Your task to perform on an android device: Go to Android settings Image 0: 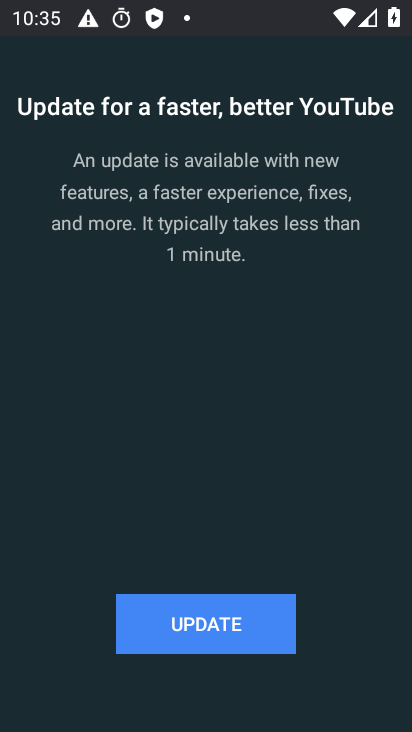
Step 0: press home button
Your task to perform on an android device: Go to Android settings Image 1: 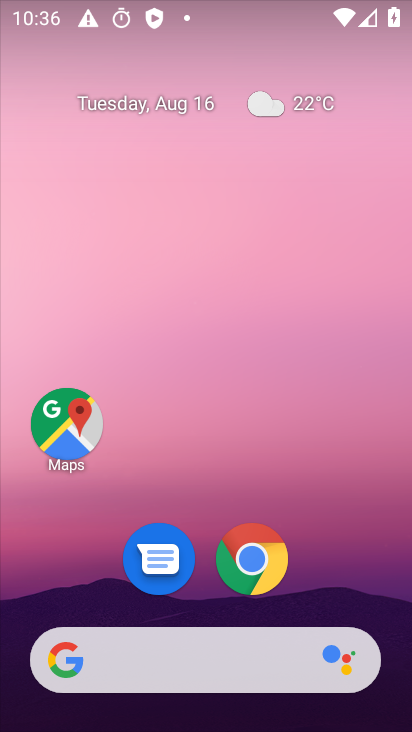
Step 1: drag from (216, 331) to (224, 213)
Your task to perform on an android device: Go to Android settings Image 2: 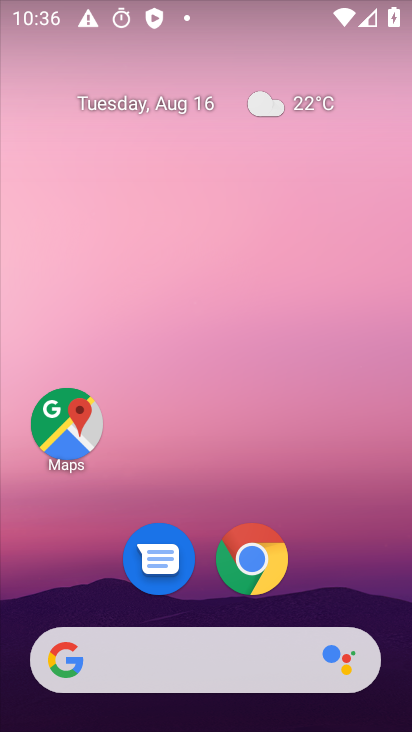
Step 2: drag from (200, 531) to (210, 37)
Your task to perform on an android device: Go to Android settings Image 3: 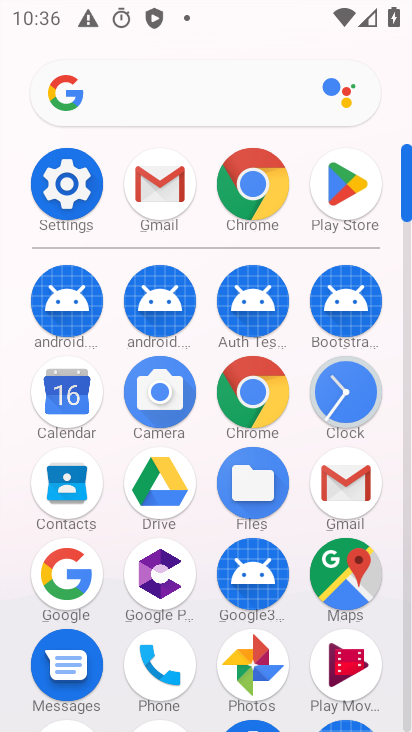
Step 3: click (66, 186)
Your task to perform on an android device: Go to Android settings Image 4: 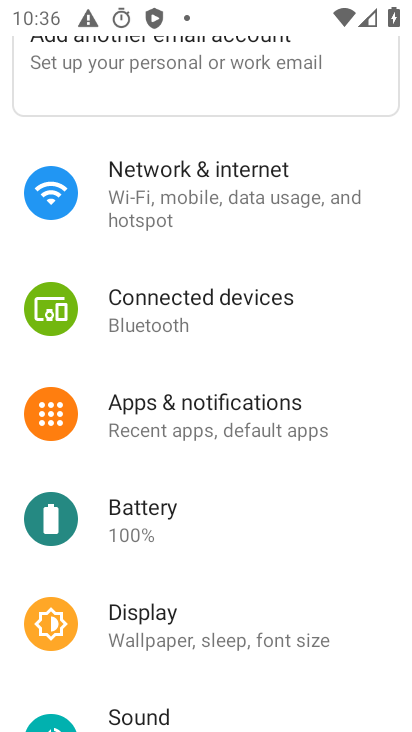
Step 4: drag from (218, 651) to (223, 369)
Your task to perform on an android device: Go to Android settings Image 5: 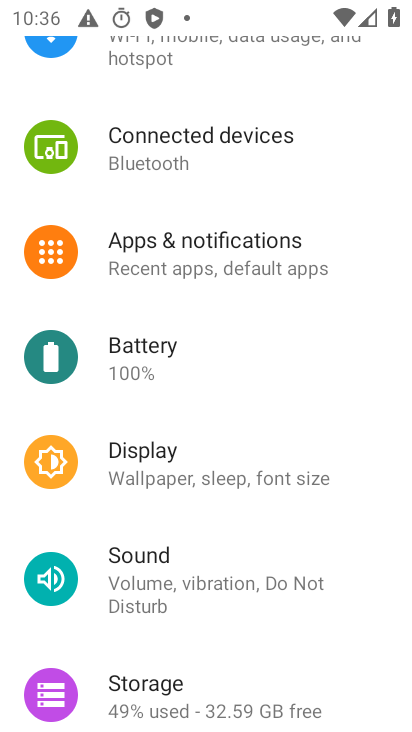
Step 5: drag from (223, 661) to (229, 271)
Your task to perform on an android device: Go to Android settings Image 6: 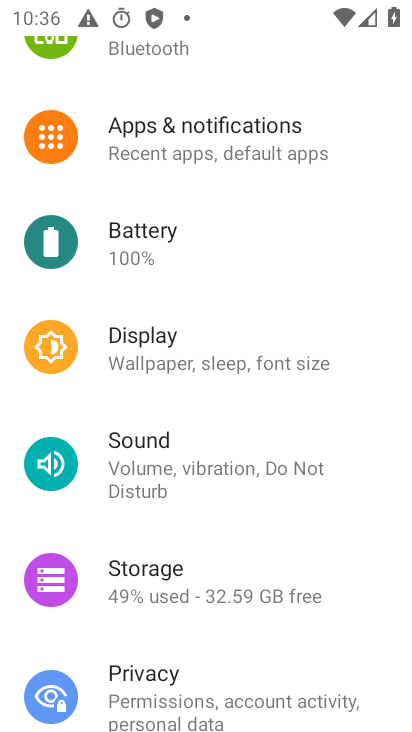
Step 6: drag from (209, 652) to (230, 183)
Your task to perform on an android device: Go to Android settings Image 7: 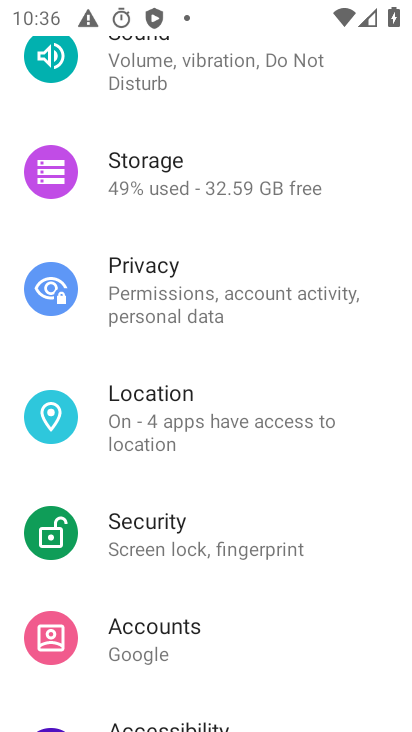
Step 7: drag from (221, 673) to (249, 354)
Your task to perform on an android device: Go to Android settings Image 8: 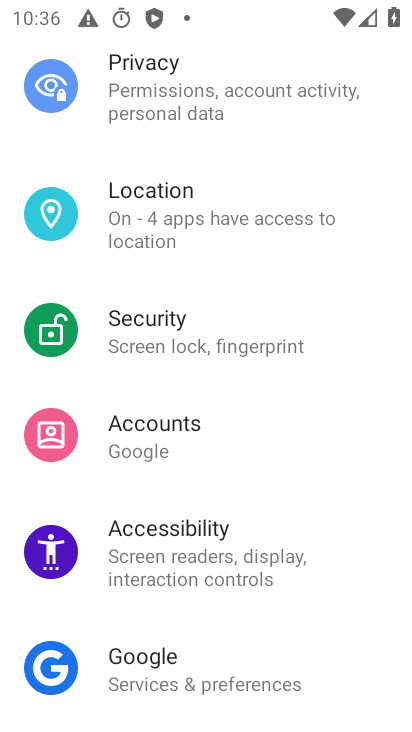
Step 8: drag from (218, 631) to (251, 292)
Your task to perform on an android device: Go to Android settings Image 9: 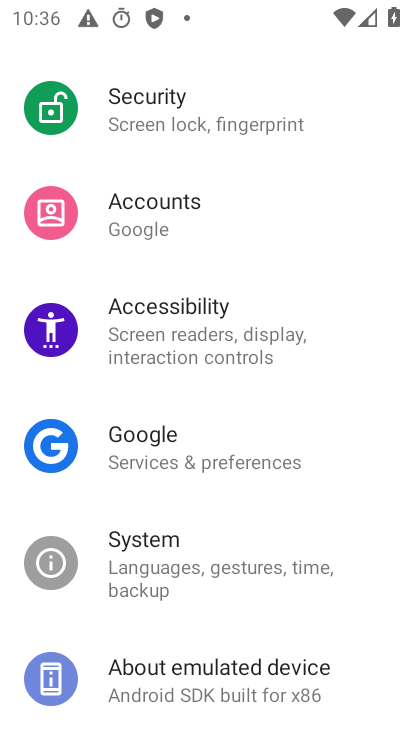
Step 9: click (174, 681)
Your task to perform on an android device: Go to Android settings Image 10: 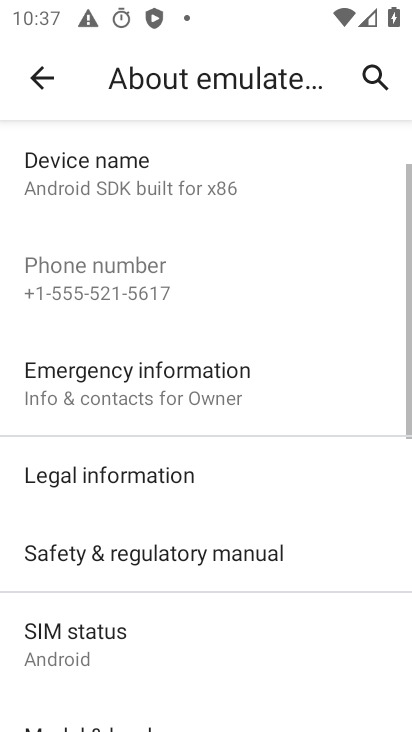
Step 10: drag from (163, 567) to (177, 374)
Your task to perform on an android device: Go to Android settings Image 11: 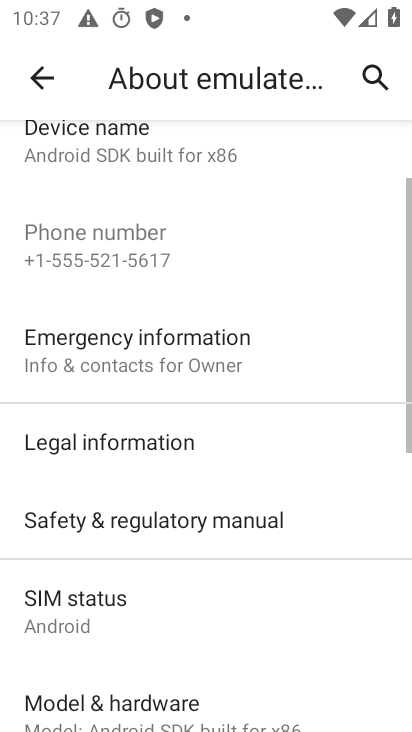
Step 11: drag from (170, 656) to (243, 309)
Your task to perform on an android device: Go to Android settings Image 12: 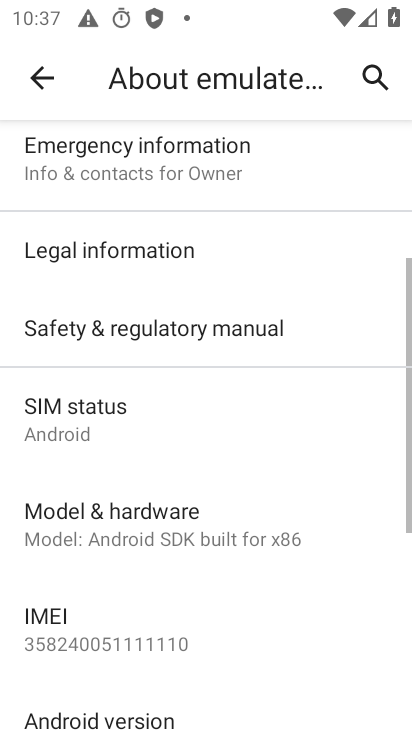
Step 12: click (136, 720)
Your task to perform on an android device: Go to Android settings Image 13: 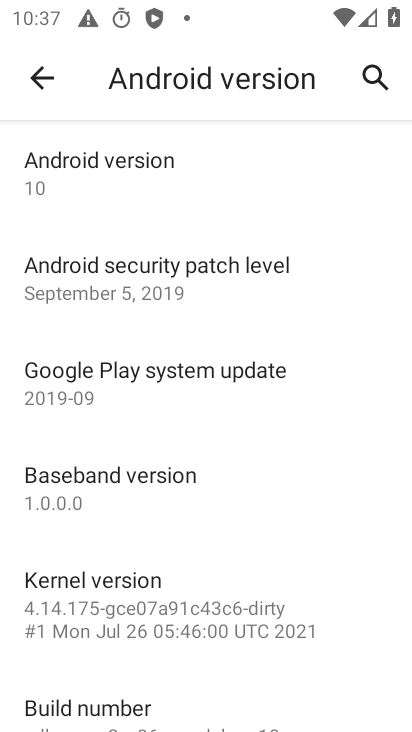
Step 13: task complete